Your task to perform on an android device: Open Wikipedia Image 0: 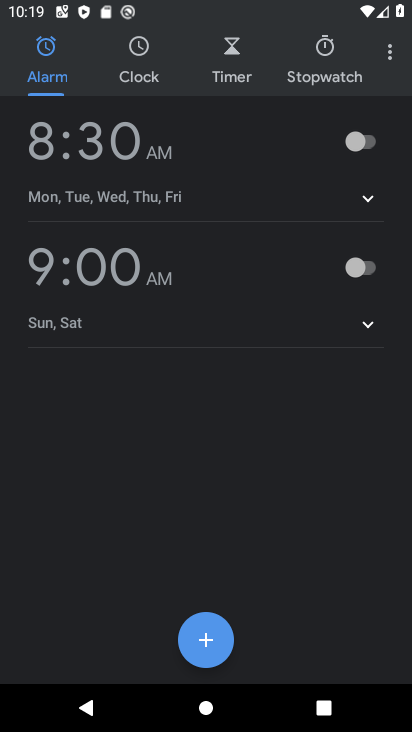
Step 0: press home button
Your task to perform on an android device: Open Wikipedia Image 1: 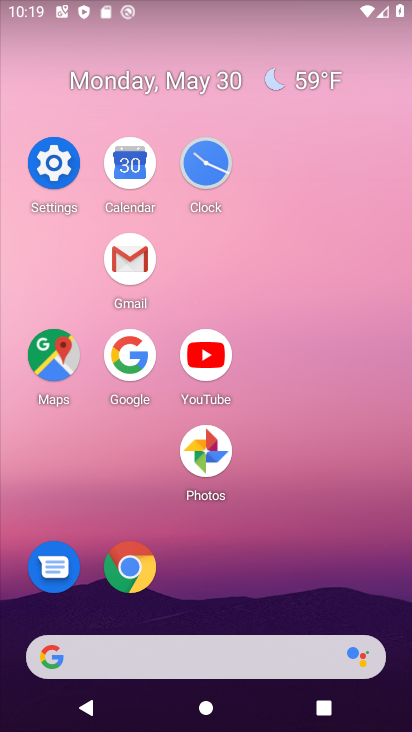
Step 1: click (154, 563)
Your task to perform on an android device: Open Wikipedia Image 2: 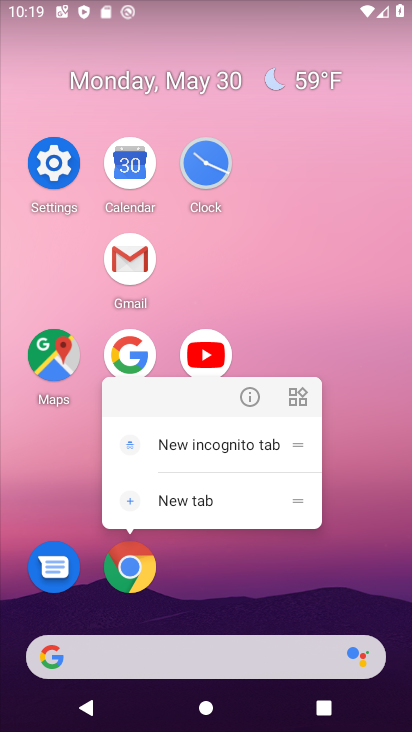
Step 2: click (136, 580)
Your task to perform on an android device: Open Wikipedia Image 3: 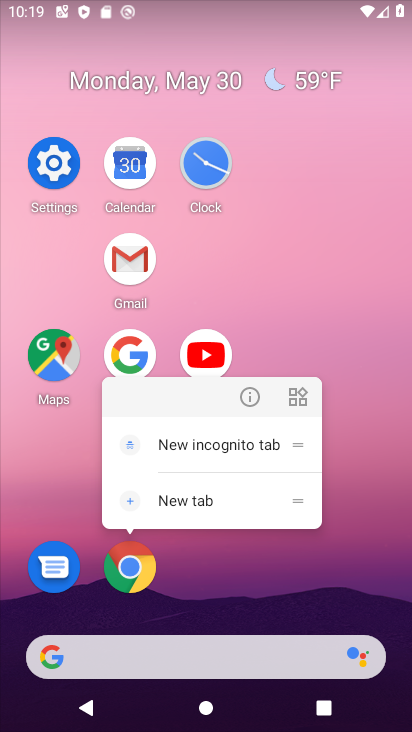
Step 3: click (153, 554)
Your task to perform on an android device: Open Wikipedia Image 4: 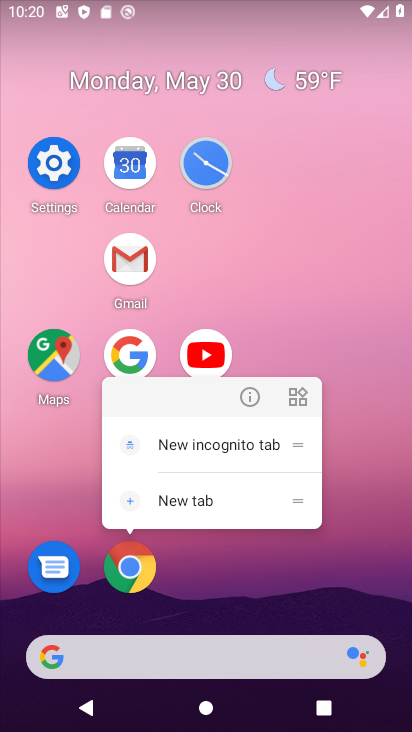
Step 4: click (129, 577)
Your task to perform on an android device: Open Wikipedia Image 5: 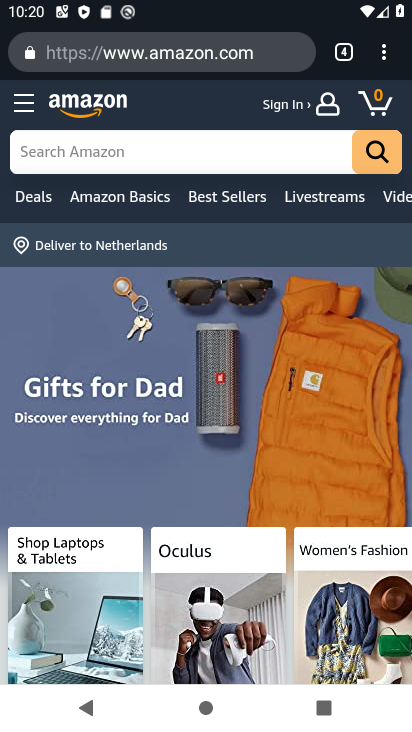
Step 5: click (351, 57)
Your task to perform on an android device: Open Wikipedia Image 6: 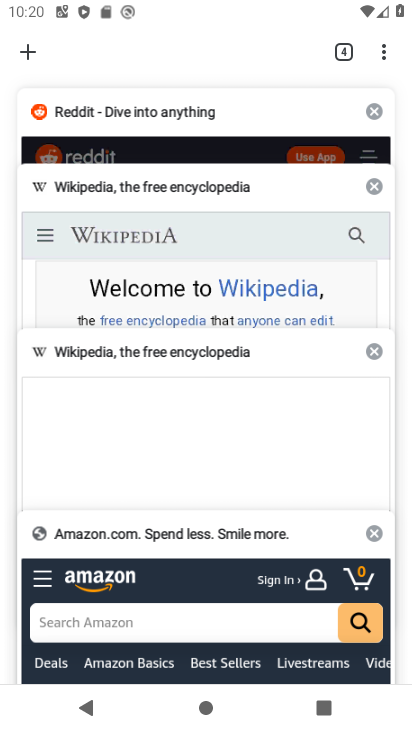
Step 6: click (79, 237)
Your task to perform on an android device: Open Wikipedia Image 7: 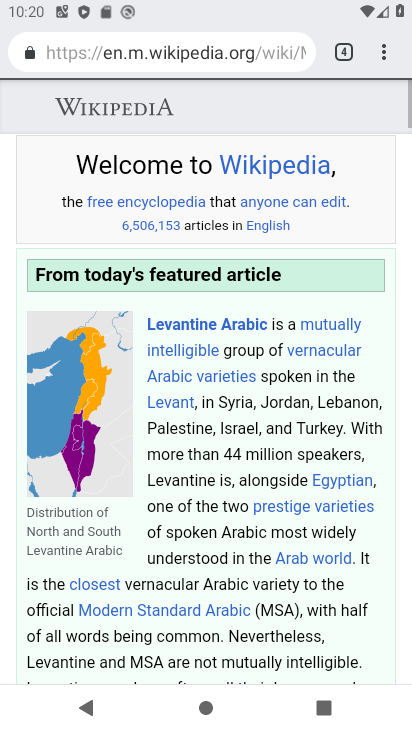
Step 7: task complete